Your task to perform on an android device: turn off picture-in-picture Image 0: 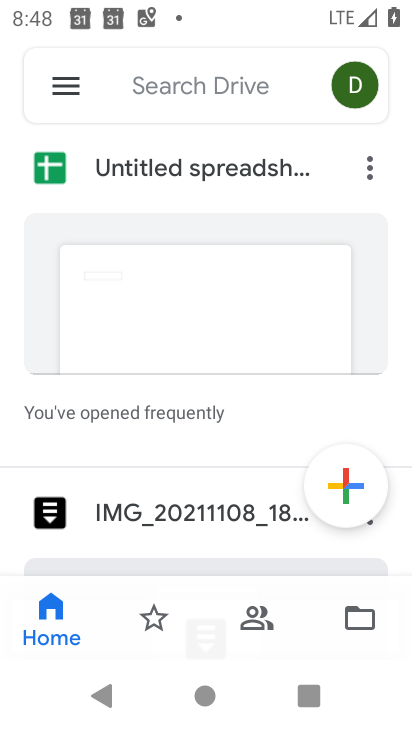
Step 0: press home button
Your task to perform on an android device: turn off picture-in-picture Image 1: 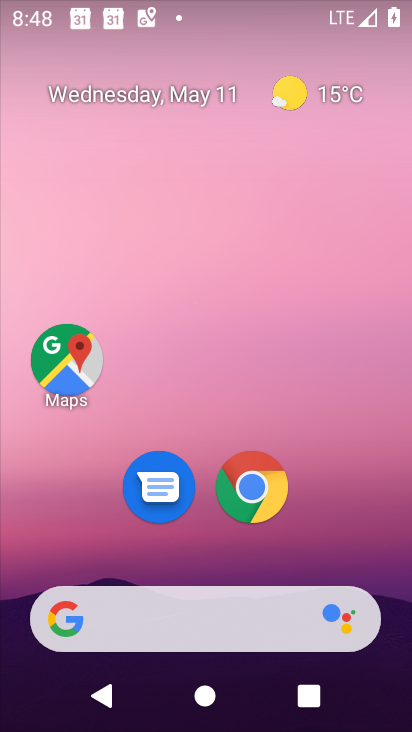
Step 1: drag from (244, 652) to (237, 84)
Your task to perform on an android device: turn off picture-in-picture Image 2: 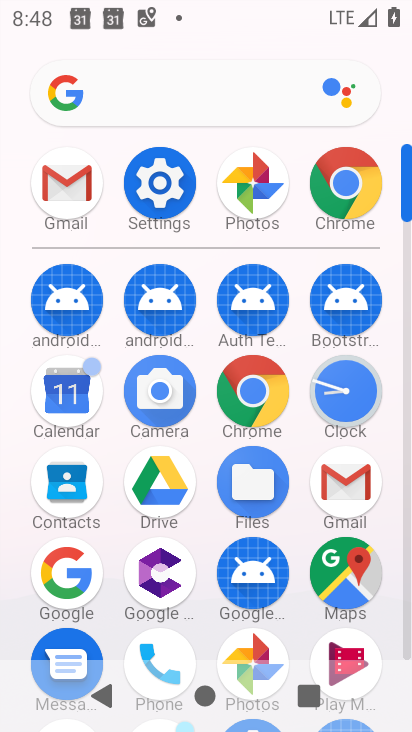
Step 2: click (144, 181)
Your task to perform on an android device: turn off picture-in-picture Image 3: 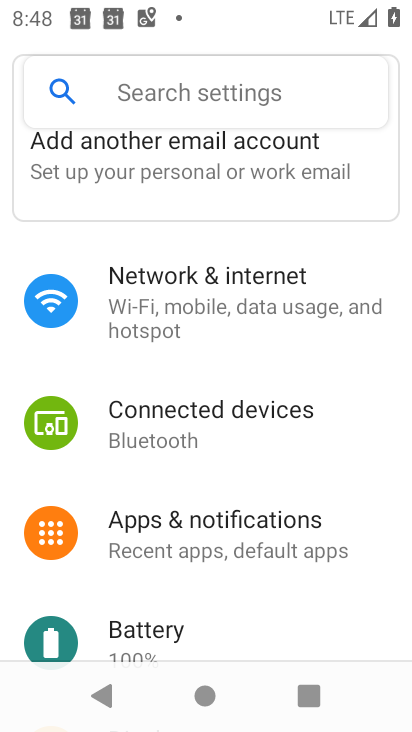
Step 3: click (182, 115)
Your task to perform on an android device: turn off picture-in-picture Image 4: 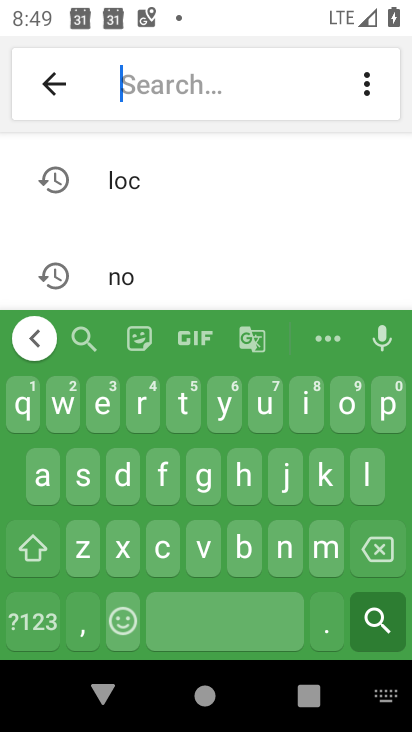
Step 4: click (385, 409)
Your task to perform on an android device: turn off picture-in-picture Image 5: 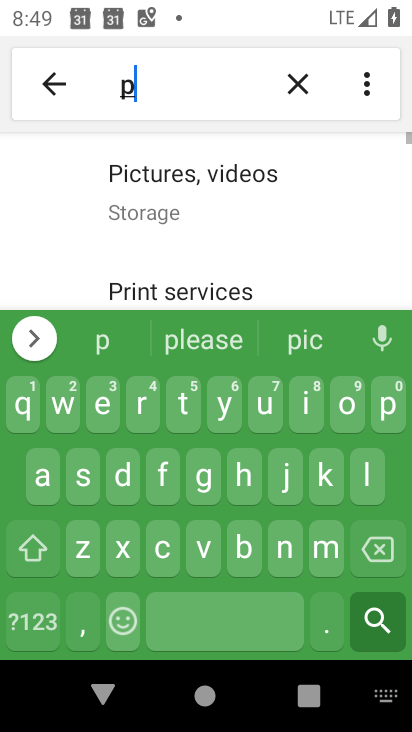
Step 5: click (300, 416)
Your task to perform on an android device: turn off picture-in-picture Image 6: 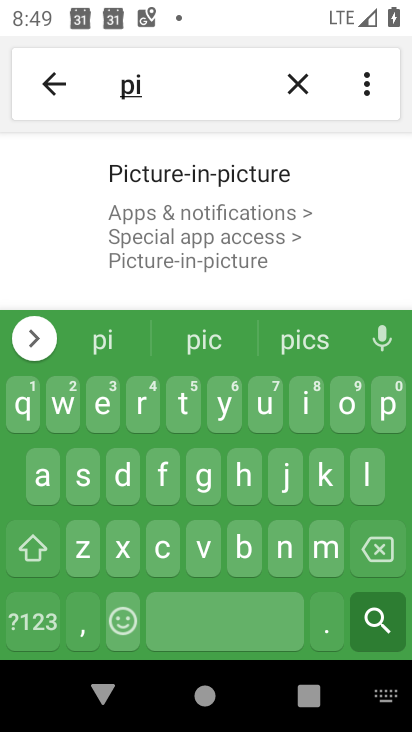
Step 6: click (258, 174)
Your task to perform on an android device: turn off picture-in-picture Image 7: 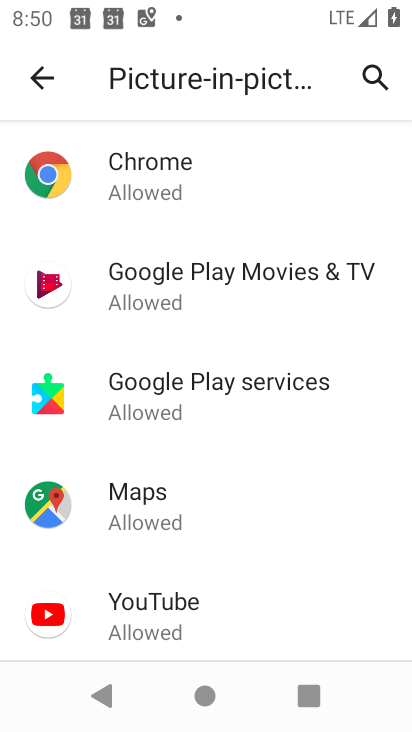
Step 7: task complete